Your task to perform on an android device: Open the Play Movies app and select the watchlist tab. Image 0: 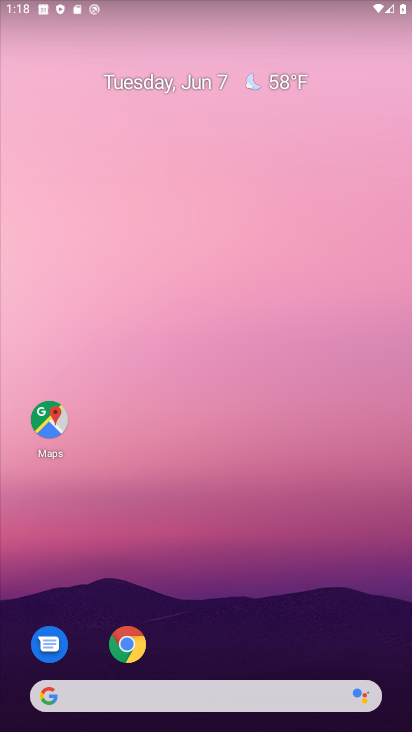
Step 0: drag from (116, 721) to (137, 106)
Your task to perform on an android device: Open the Play Movies app and select the watchlist tab. Image 1: 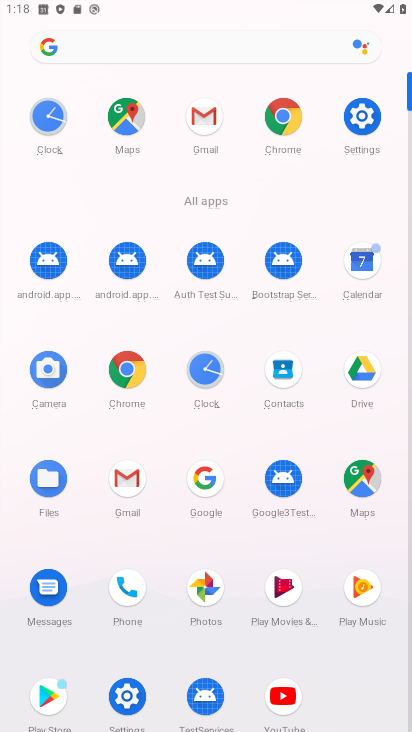
Step 1: click (283, 592)
Your task to perform on an android device: Open the Play Movies app and select the watchlist tab. Image 2: 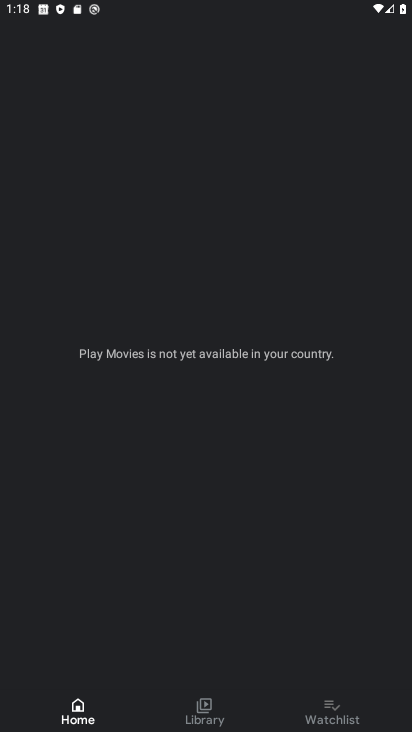
Step 2: click (337, 712)
Your task to perform on an android device: Open the Play Movies app and select the watchlist tab. Image 3: 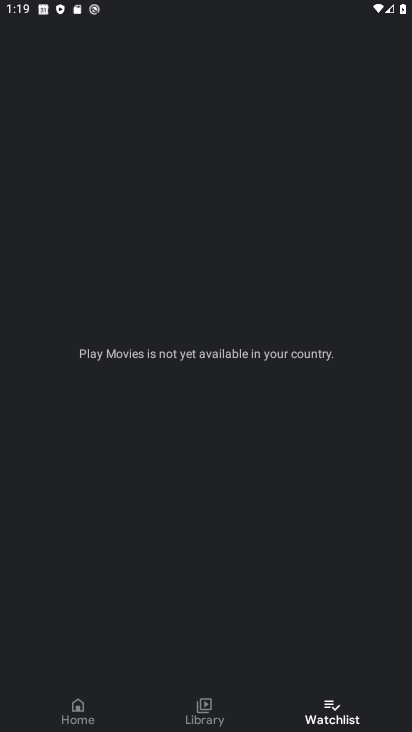
Step 3: task complete